Your task to perform on an android device: turn on improve location accuracy Image 0: 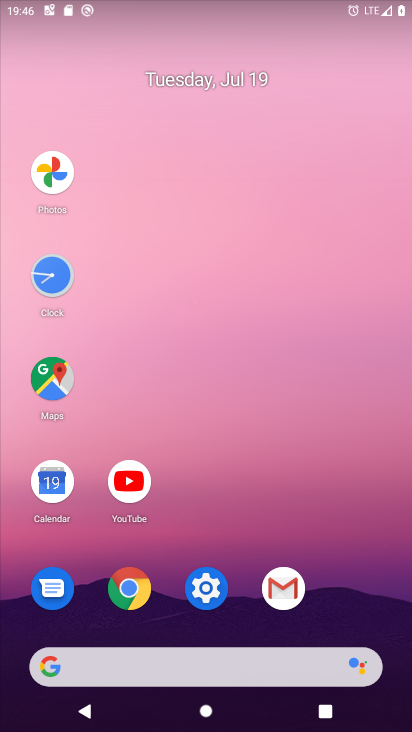
Step 0: click (207, 578)
Your task to perform on an android device: turn on improve location accuracy Image 1: 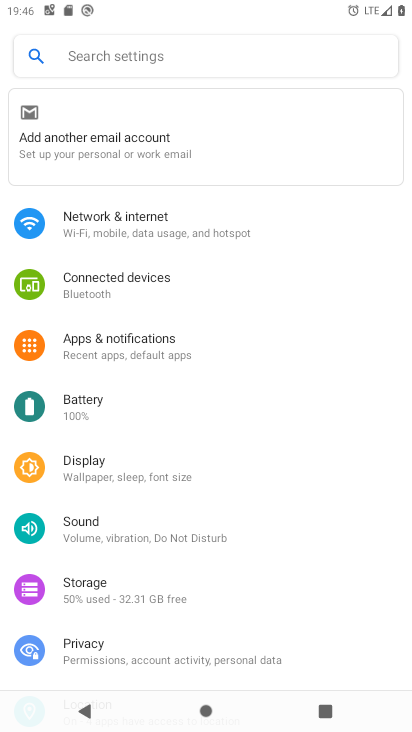
Step 1: drag from (236, 602) to (236, 316)
Your task to perform on an android device: turn on improve location accuracy Image 2: 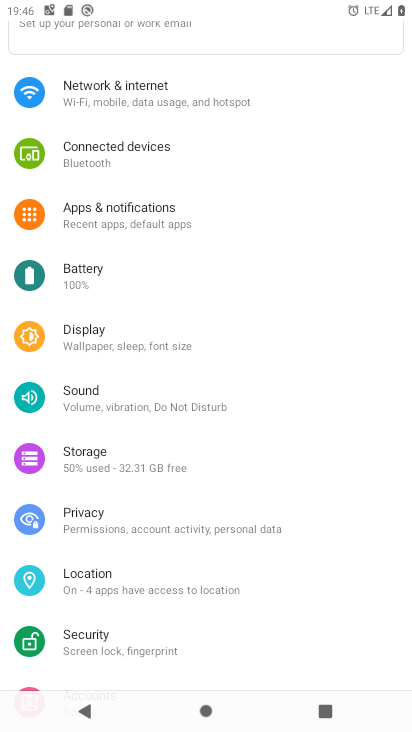
Step 2: click (86, 573)
Your task to perform on an android device: turn on improve location accuracy Image 3: 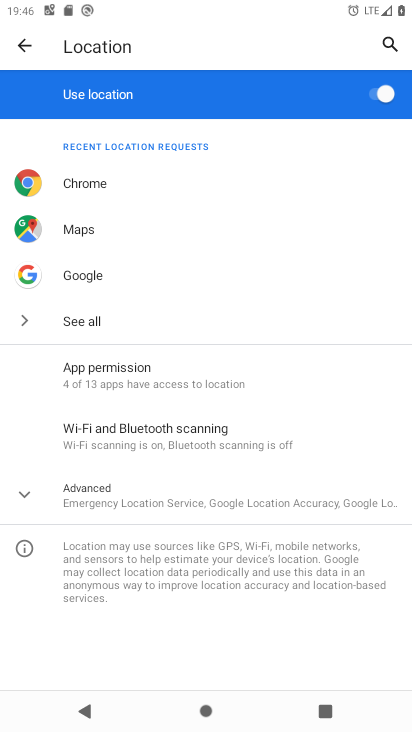
Step 3: click (28, 495)
Your task to perform on an android device: turn on improve location accuracy Image 4: 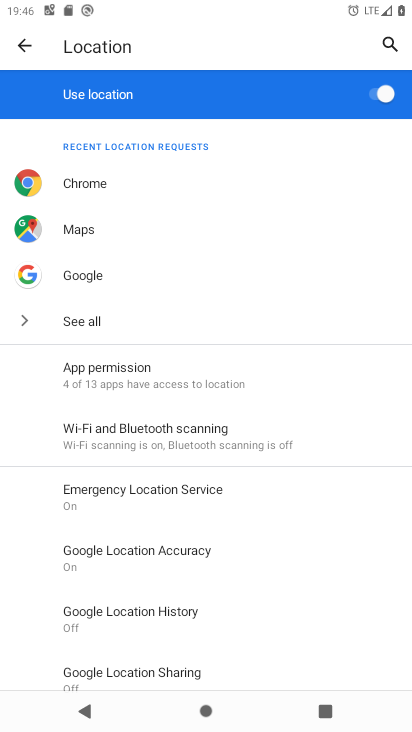
Step 4: click (149, 548)
Your task to perform on an android device: turn on improve location accuracy Image 5: 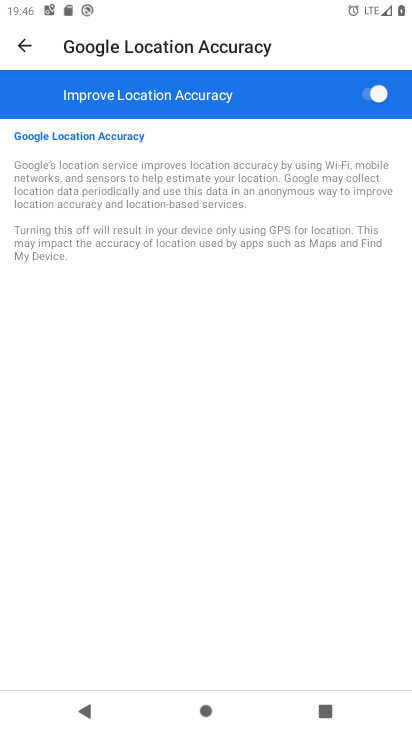
Step 5: task complete